Your task to perform on an android device: Clear the cart on amazon. Search for "jbl charge 4" on amazon, select the first entry, add it to the cart, then select checkout. Image 0: 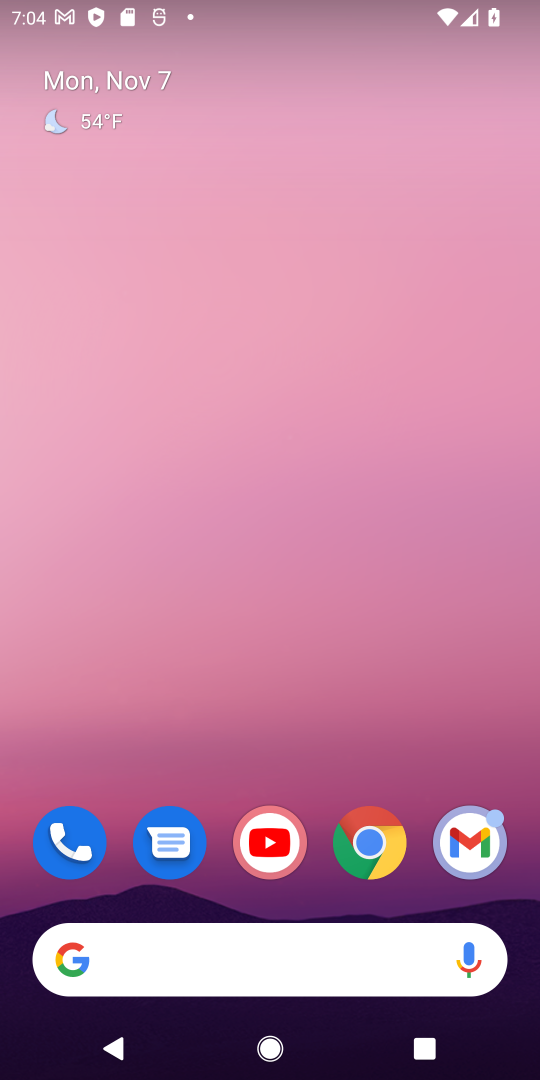
Step 0: click (365, 851)
Your task to perform on an android device: Clear the cart on amazon. Search for "jbl charge 4" on amazon, select the first entry, add it to the cart, then select checkout. Image 1: 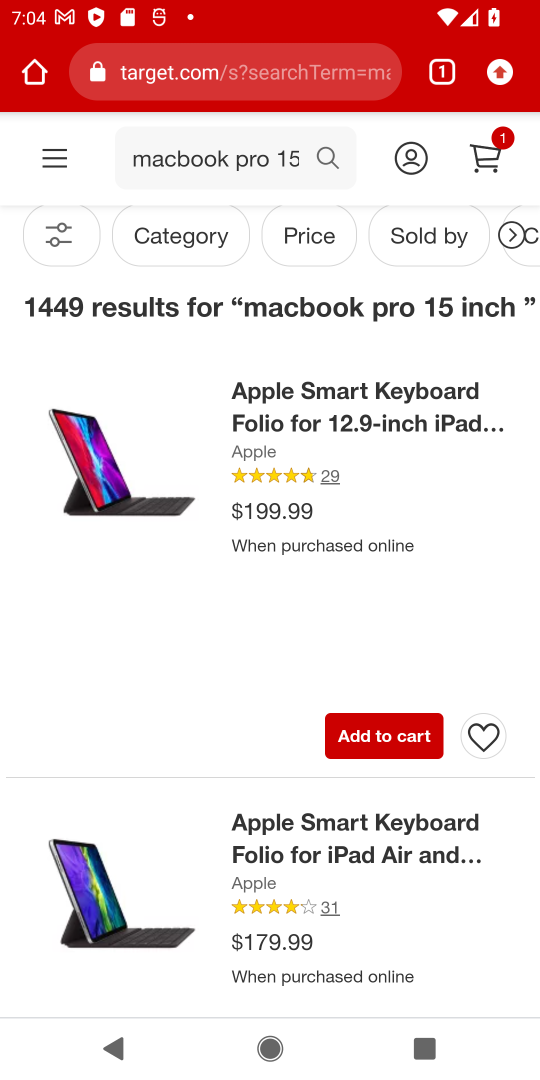
Step 1: click (332, 66)
Your task to perform on an android device: Clear the cart on amazon. Search for "jbl charge 4" on amazon, select the first entry, add it to the cart, then select checkout. Image 2: 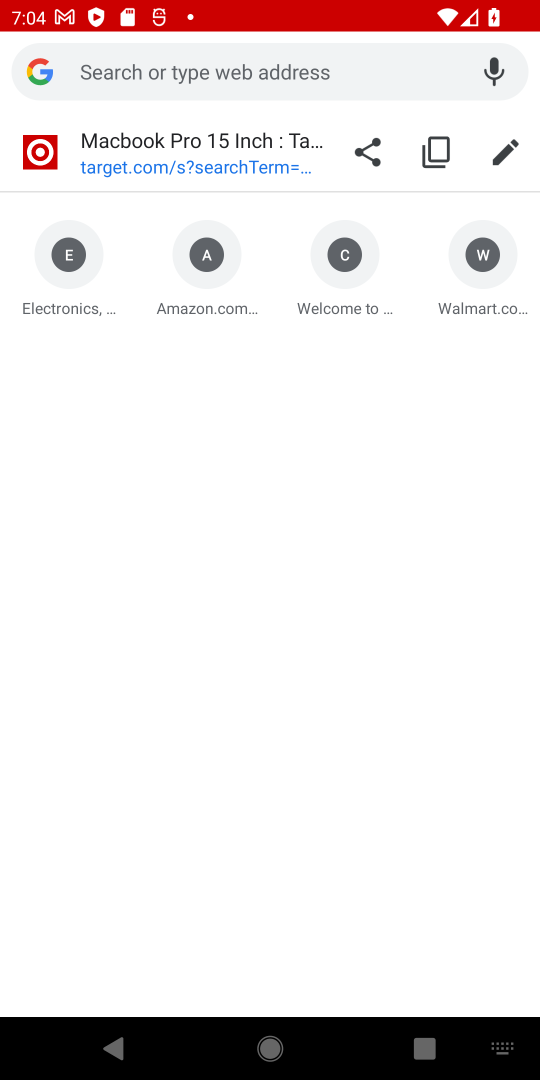
Step 2: click (196, 308)
Your task to perform on an android device: Clear the cart on amazon. Search for "jbl charge 4" on amazon, select the first entry, add it to the cart, then select checkout. Image 3: 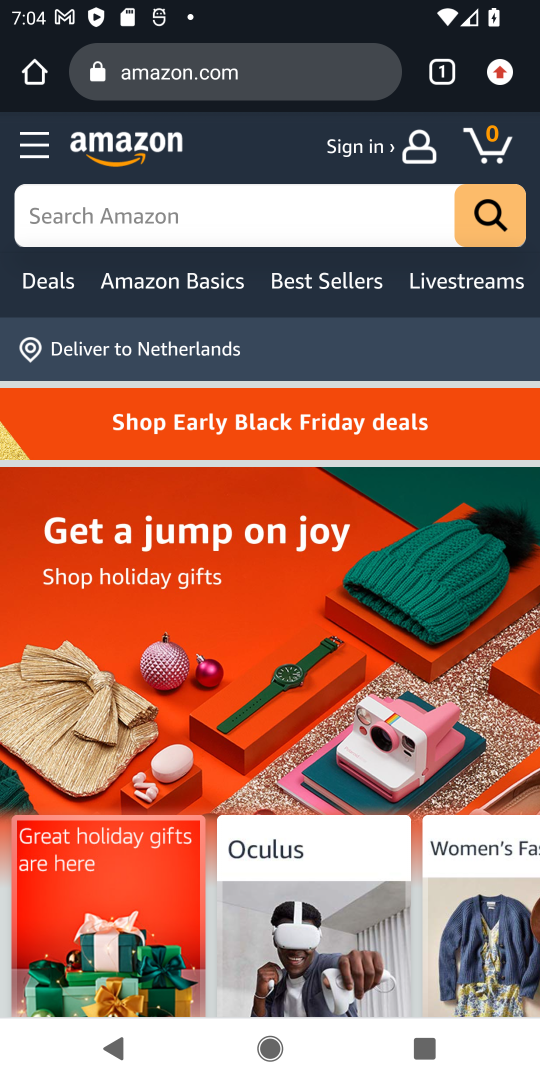
Step 3: click (183, 220)
Your task to perform on an android device: Clear the cart on amazon. Search for "jbl charge 4" on amazon, select the first entry, add it to the cart, then select checkout. Image 4: 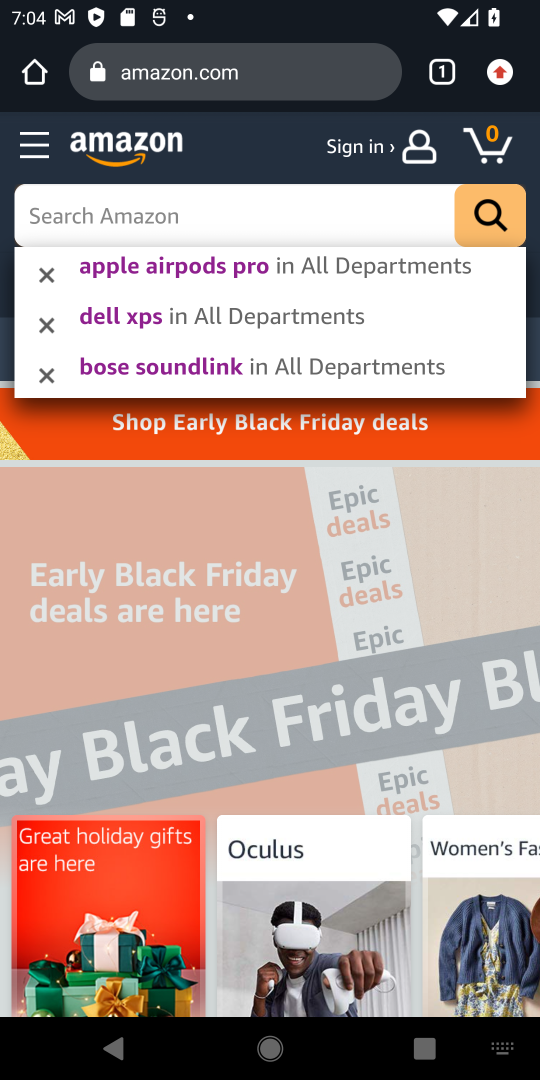
Step 4: type "jbl charge 4"
Your task to perform on an android device: Clear the cart on amazon. Search for "jbl charge 4" on amazon, select the first entry, add it to the cart, then select checkout. Image 5: 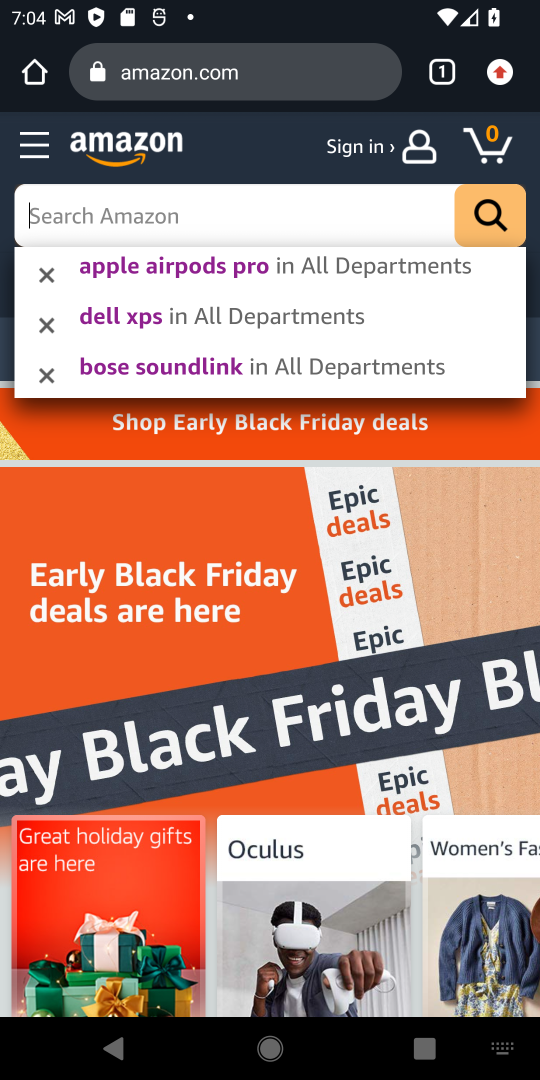
Step 5: press enter
Your task to perform on an android device: Clear the cart on amazon. Search for "jbl charge 4" on amazon, select the first entry, add it to the cart, then select checkout. Image 6: 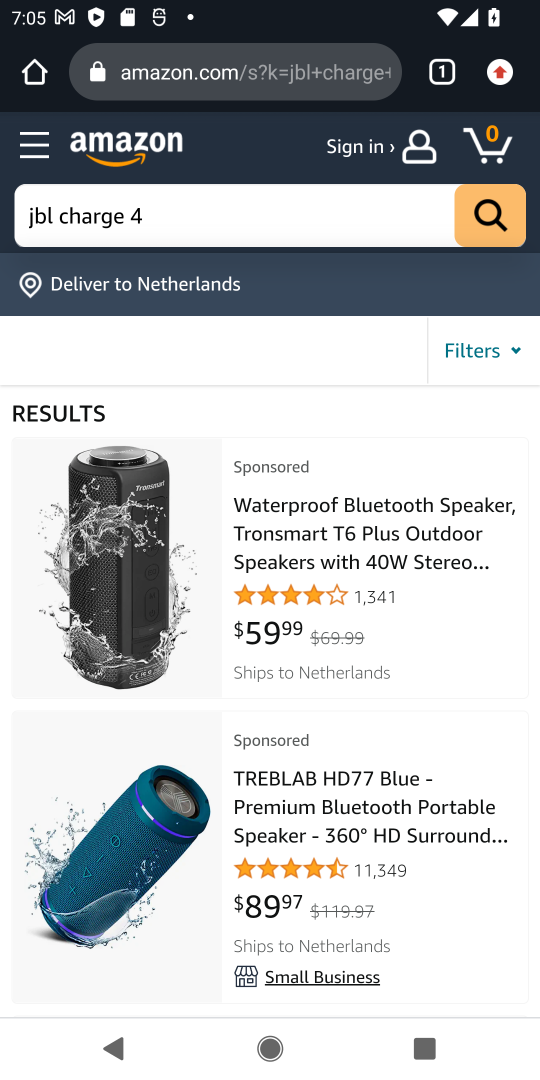
Step 6: click (280, 558)
Your task to perform on an android device: Clear the cart on amazon. Search for "jbl charge 4" on amazon, select the first entry, add it to the cart, then select checkout. Image 7: 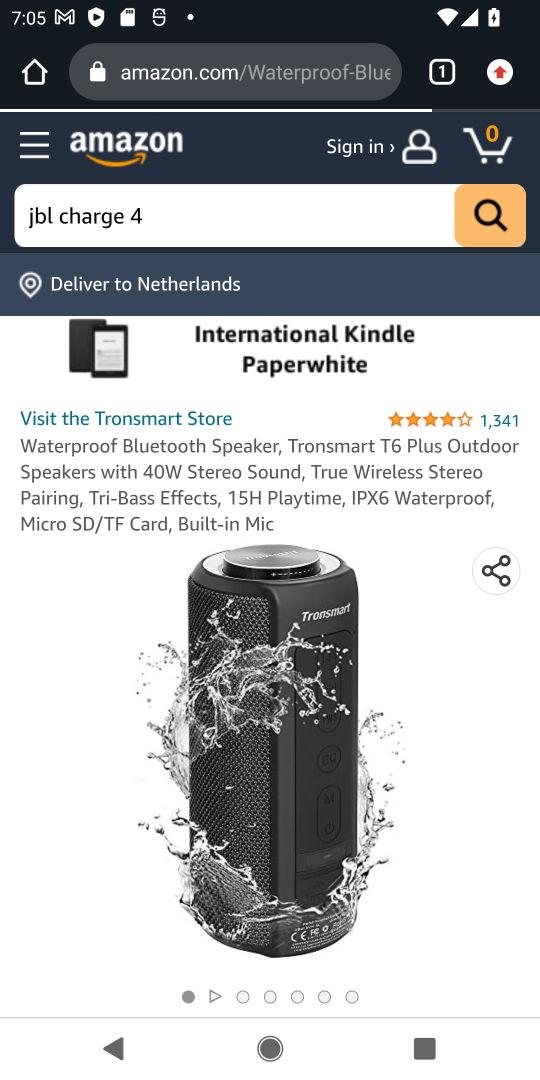
Step 7: task complete